Your task to perform on an android device: Open settings on Google Maps Image 0: 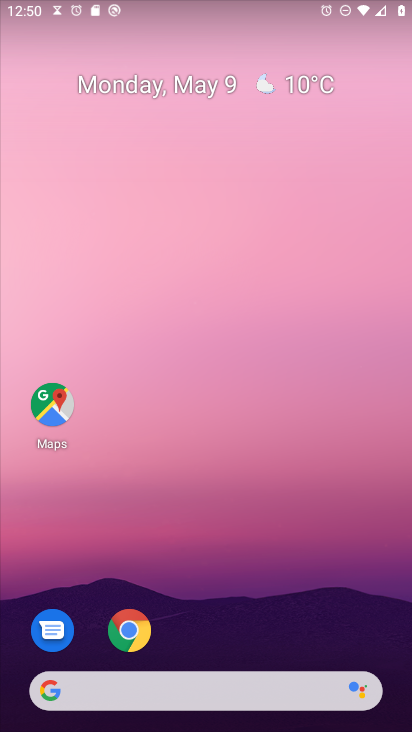
Step 0: click (49, 410)
Your task to perform on an android device: Open settings on Google Maps Image 1: 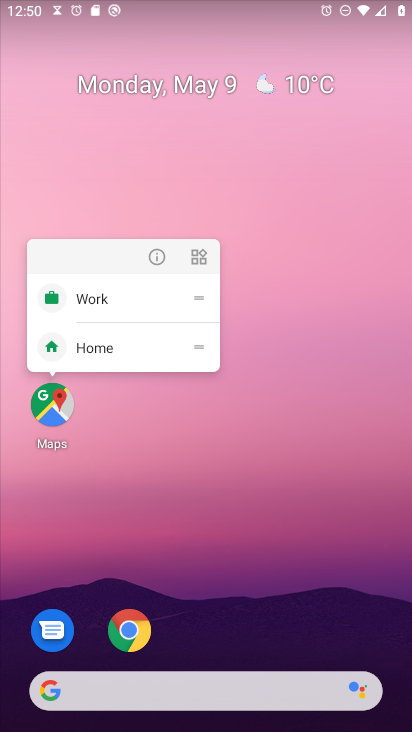
Step 1: click (53, 413)
Your task to perform on an android device: Open settings on Google Maps Image 2: 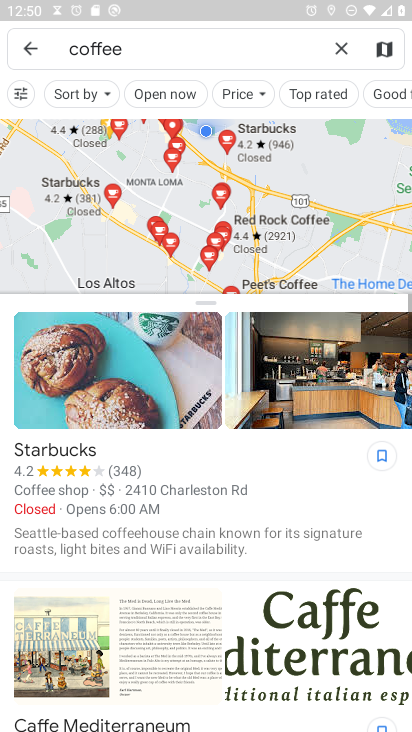
Step 2: click (34, 46)
Your task to perform on an android device: Open settings on Google Maps Image 3: 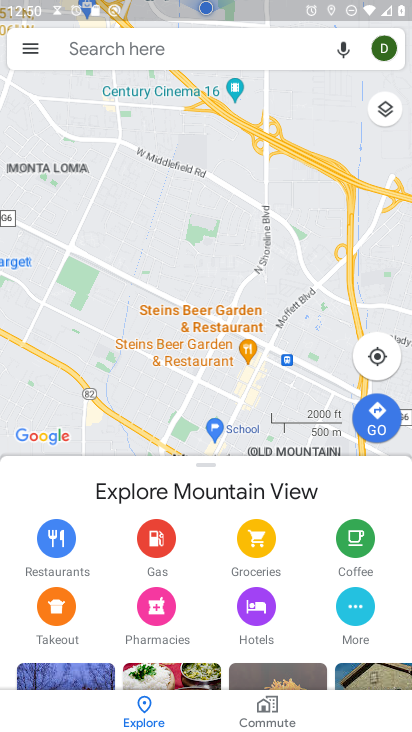
Step 3: click (34, 46)
Your task to perform on an android device: Open settings on Google Maps Image 4: 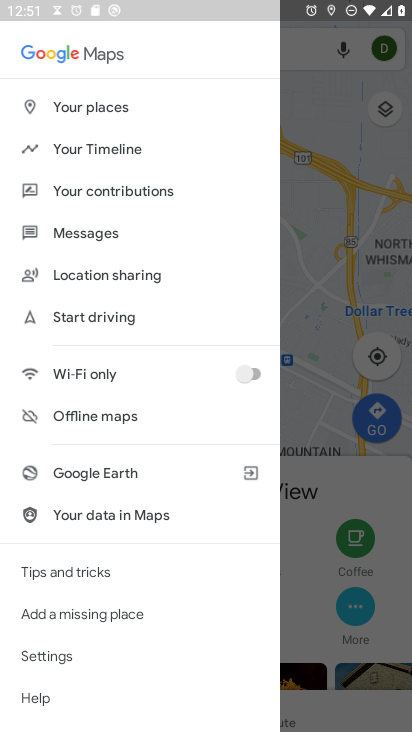
Step 4: click (49, 659)
Your task to perform on an android device: Open settings on Google Maps Image 5: 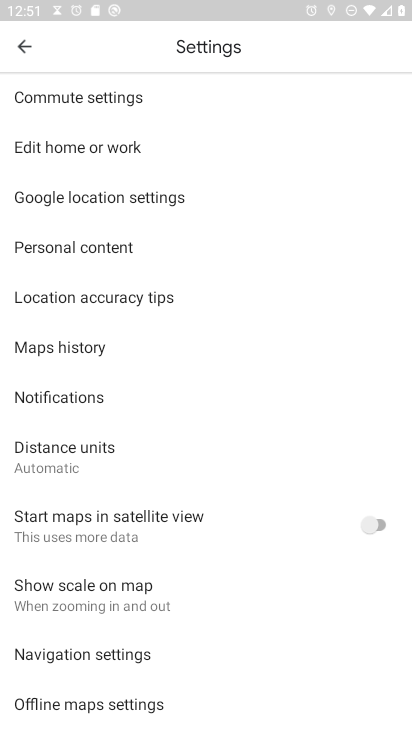
Step 5: task complete